Your task to perform on an android device: toggle priority inbox in the gmail app Image 0: 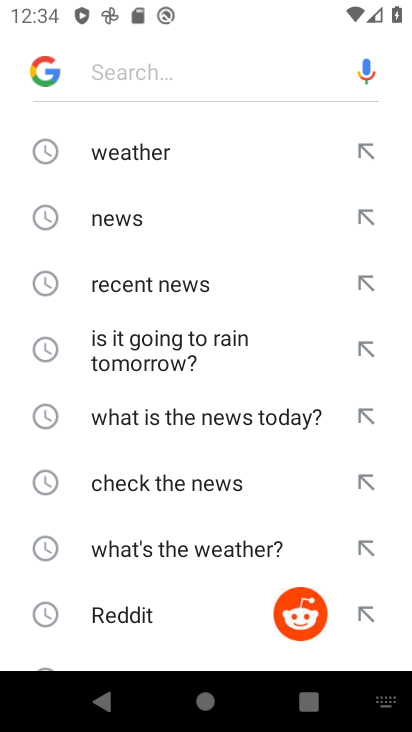
Step 0: press home button
Your task to perform on an android device: toggle priority inbox in the gmail app Image 1: 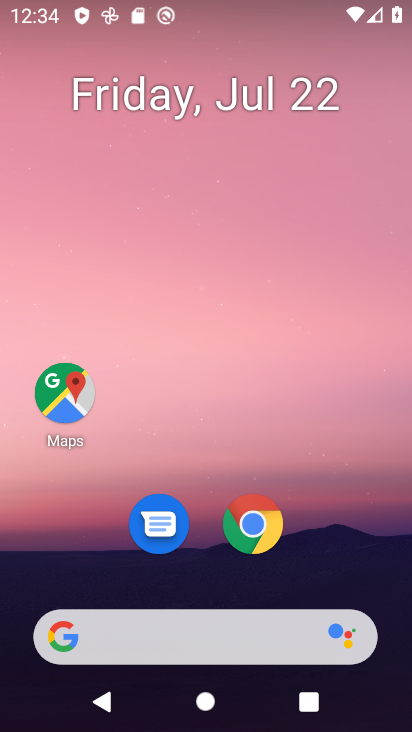
Step 1: drag from (152, 635) to (255, 170)
Your task to perform on an android device: toggle priority inbox in the gmail app Image 2: 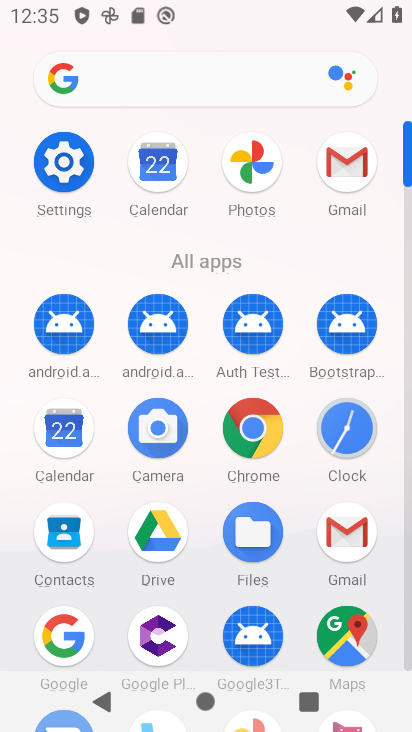
Step 2: click (351, 181)
Your task to perform on an android device: toggle priority inbox in the gmail app Image 3: 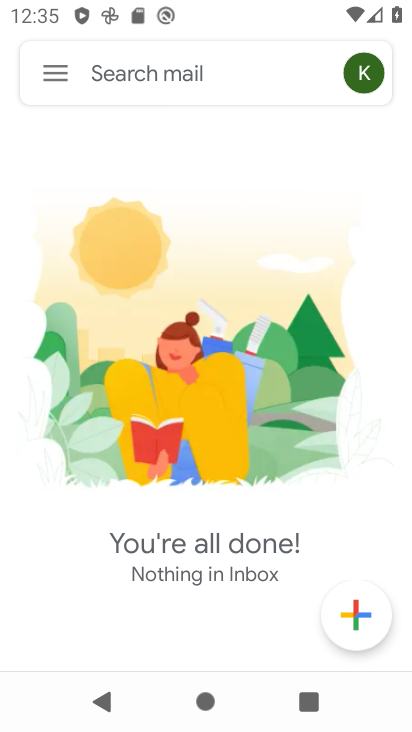
Step 3: click (57, 71)
Your task to perform on an android device: toggle priority inbox in the gmail app Image 4: 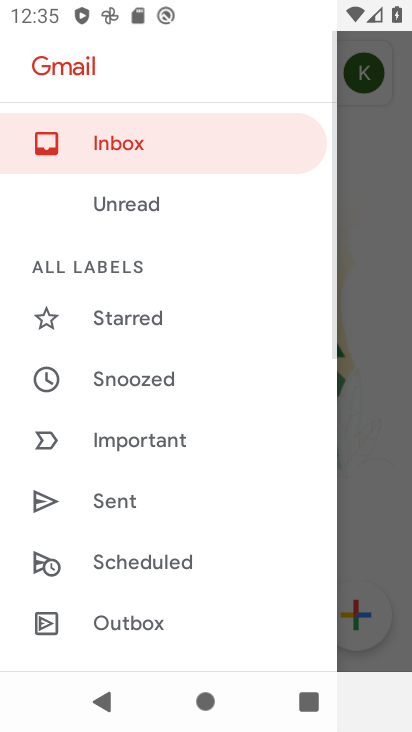
Step 4: drag from (179, 599) to (269, 111)
Your task to perform on an android device: toggle priority inbox in the gmail app Image 5: 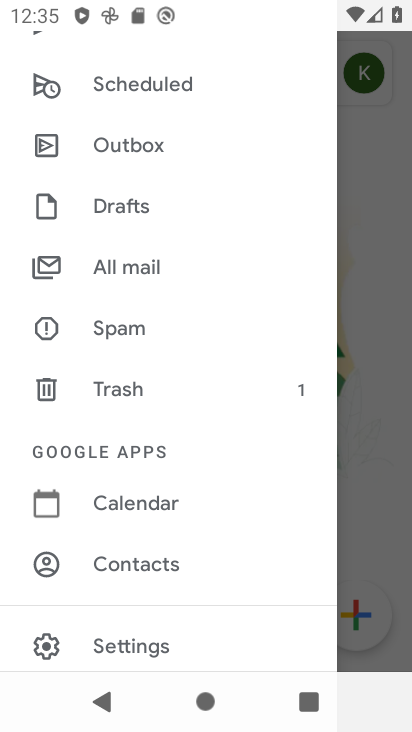
Step 5: drag from (204, 510) to (254, 217)
Your task to perform on an android device: toggle priority inbox in the gmail app Image 6: 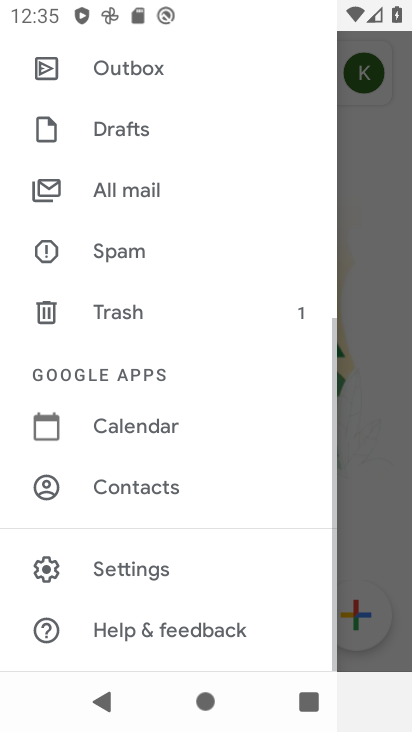
Step 6: click (143, 556)
Your task to perform on an android device: toggle priority inbox in the gmail app Image 7: 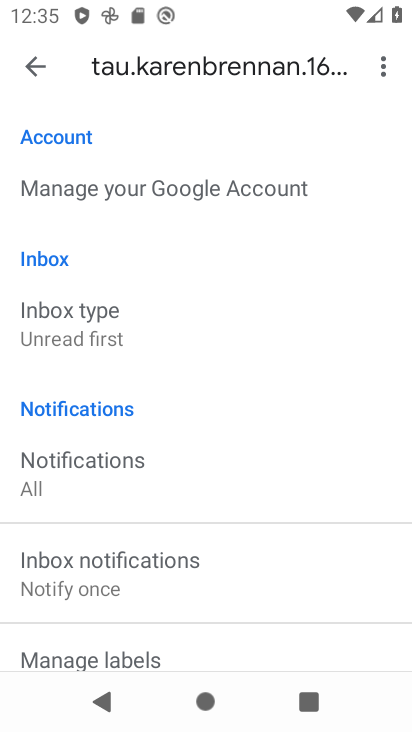
Step 7: click (100, 334)
Your task to perform on an android device: toggle priority inbox in the gmail app Image 8: 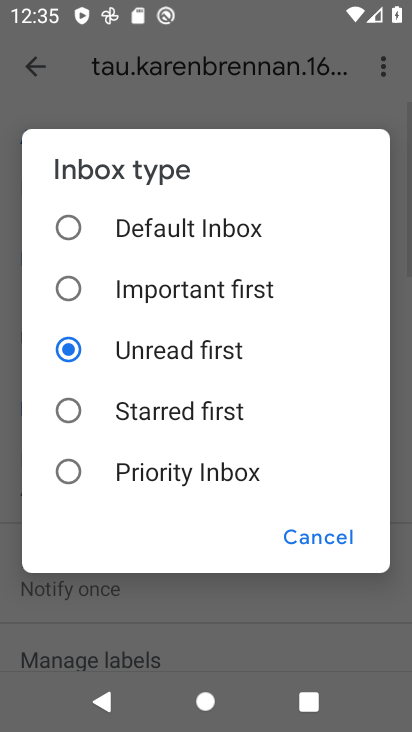
Step 8: click (65, 467)
Your task to perform on an android device: toggle priority inbox in the gmail app Image 9: 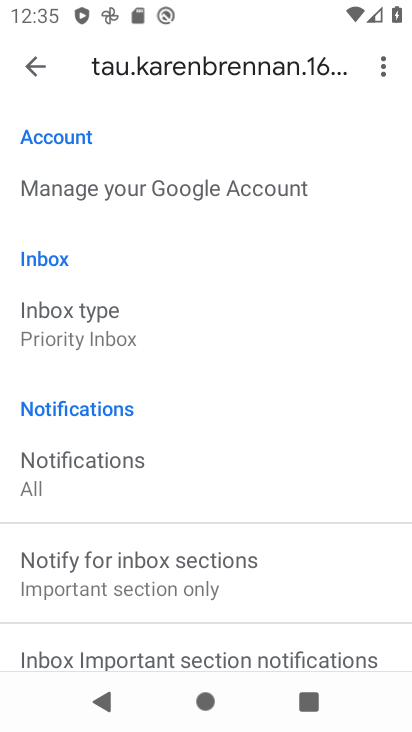
Step 9: task complete